Your task to perform on an android device: turn off wifi Image 0: 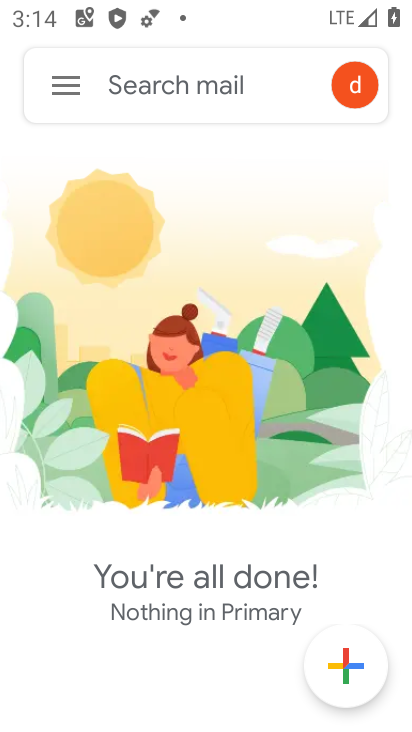
Step 0: press home button
Your task to perform on an android device: turn off wifi Image 1: 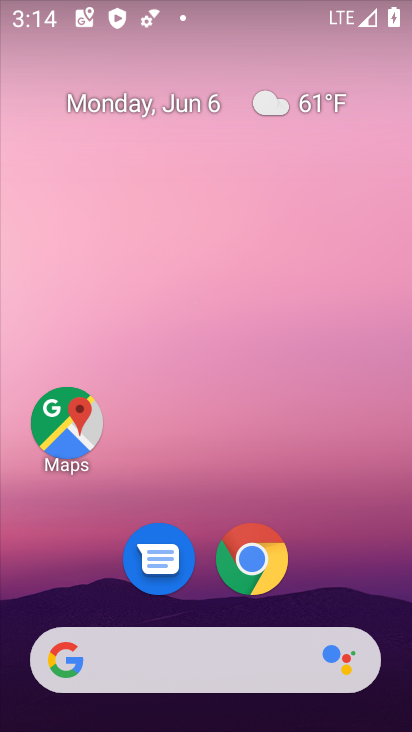
Step 1: drag from (222, 612) to (244, 17)
Your task to perform on an android device: turn off wifi Image 2: 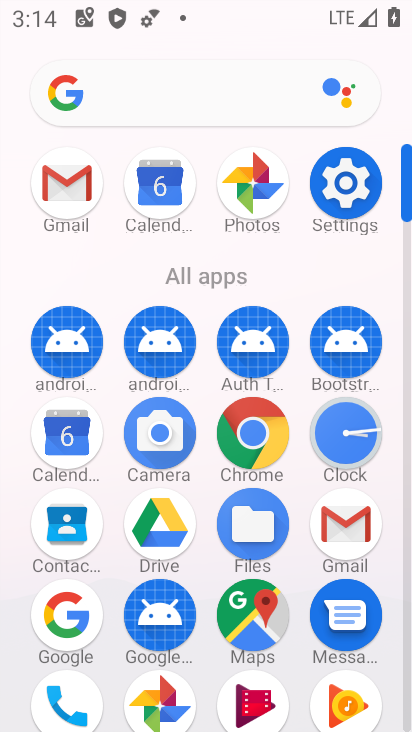
Step 2: click (345, 186)
Your task to perform on an android device: turn off wifi Image 3: 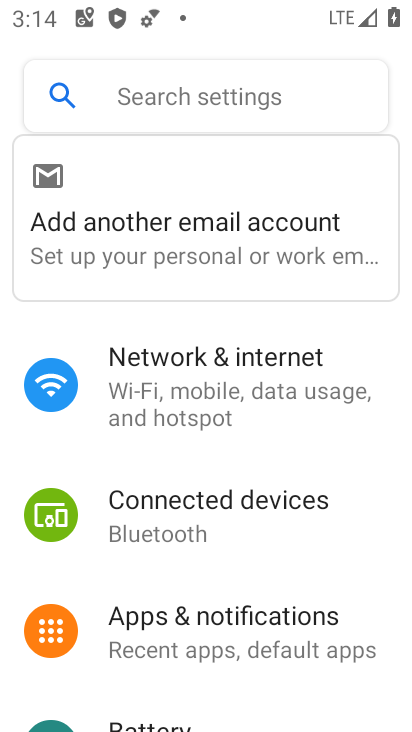
Step 3: click (209, 352)
Your task to perform on an android device: turn off wifi Image 4: 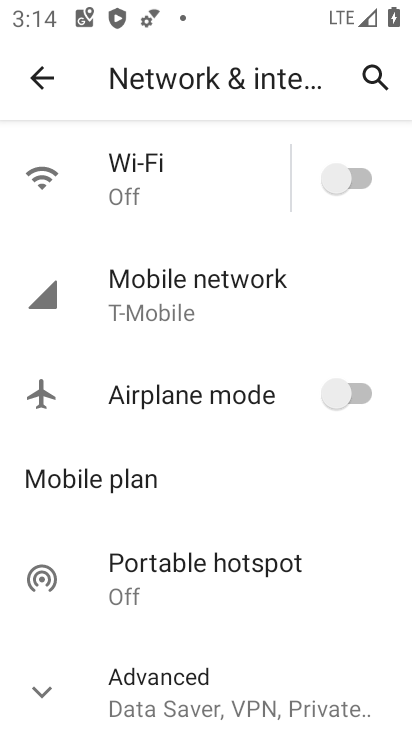
Step 4: click (171, 178)
Your task to perform on an android device: turn off wifi Image 5: 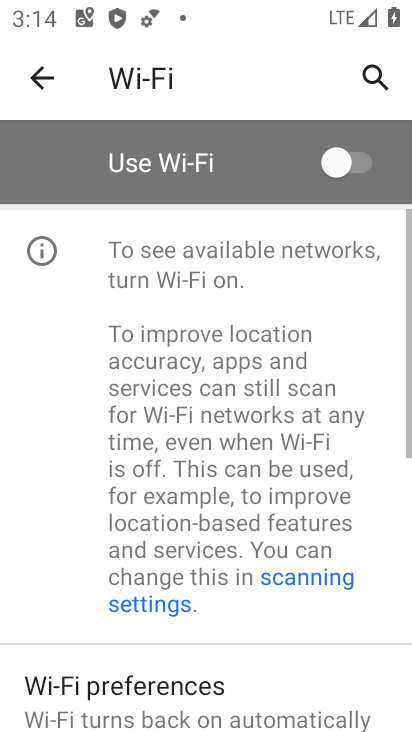
Step 5: task complete